Your task to perform on an android device: toggle translation in the chrome app Image 0: 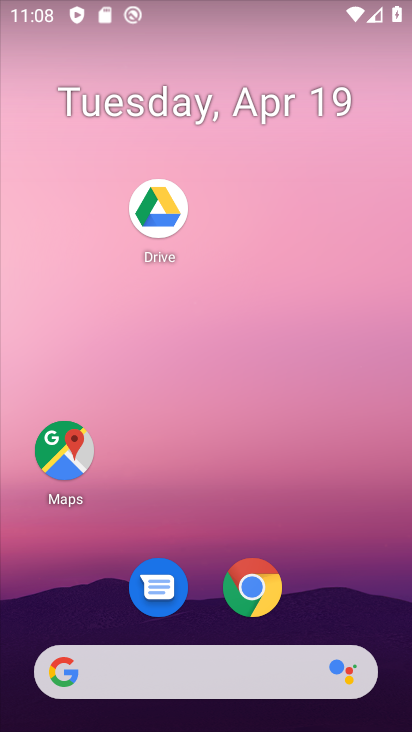
Step 0: click (254, 587)
Your task to perform on an android device: toggle translation in the chrome app Image 1: 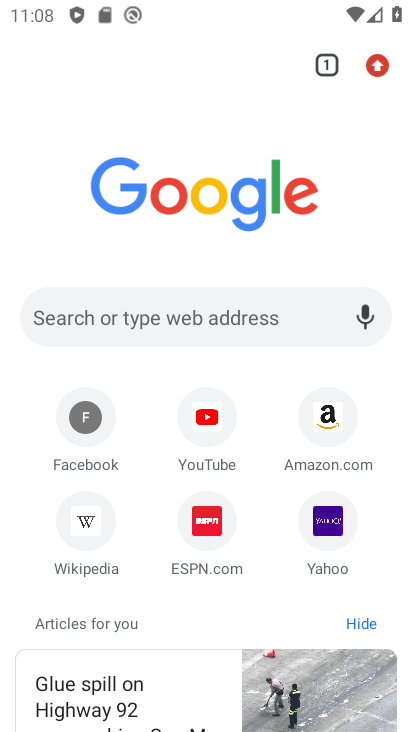
Step 1: click (374, 61)
Your task to perform on an android device: toggle translation in the chrome app Image 2: 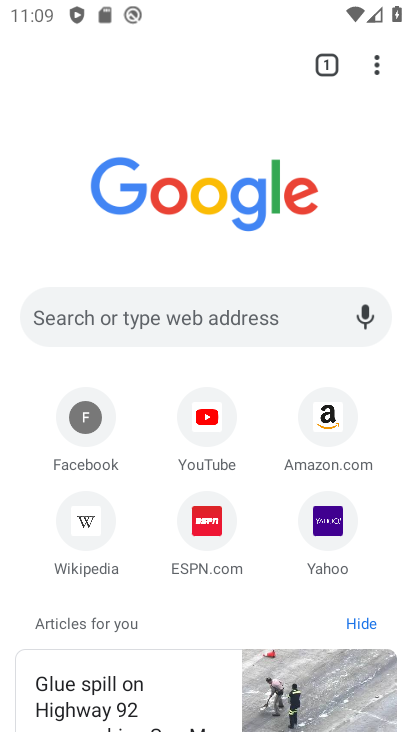
Step 2: click (376, 65)
Your task to perform on an android device: toggle translation in the chrome app Image 3: 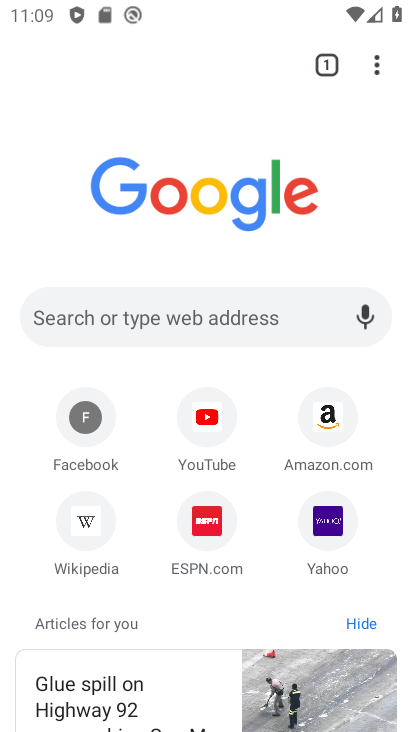
Step 3: drag from (377, 66) to (209, 618)
Your task to perform on an android device: toggle translation in the chrome app Image 4: 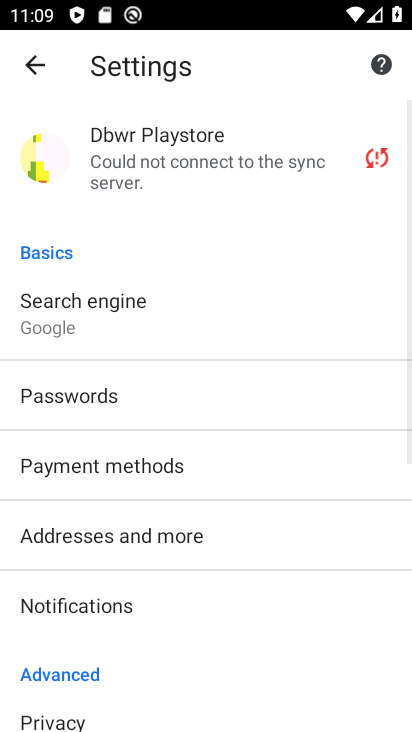
Step 4: drag from (119, 694) to (138, 293)
Your task to perform on an android device: toggle translation in the chrome app Image 5: 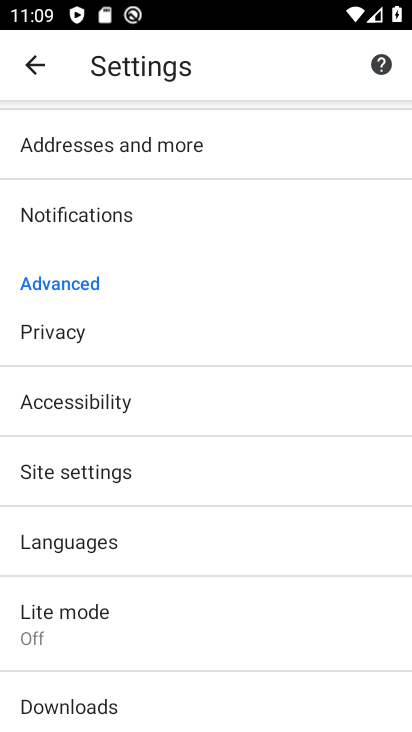
Step 5: click (117, 528)
Your task to perform on an android device: toggle translation in the chrome app Image 6: 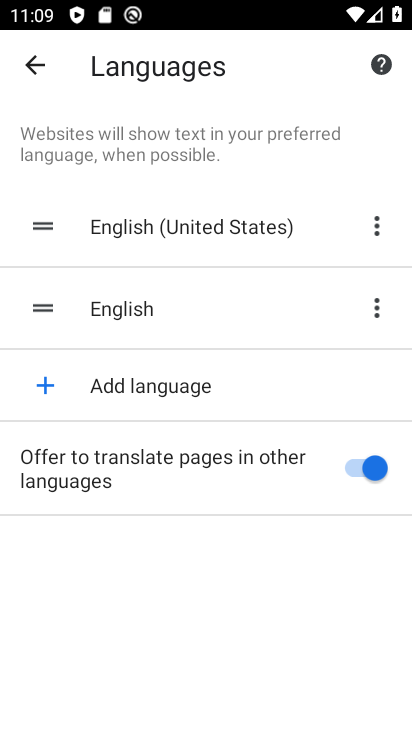
Step 6: click (360, 471)
Your task to perform on an android device: toggle translation in the chrome app Image 7: 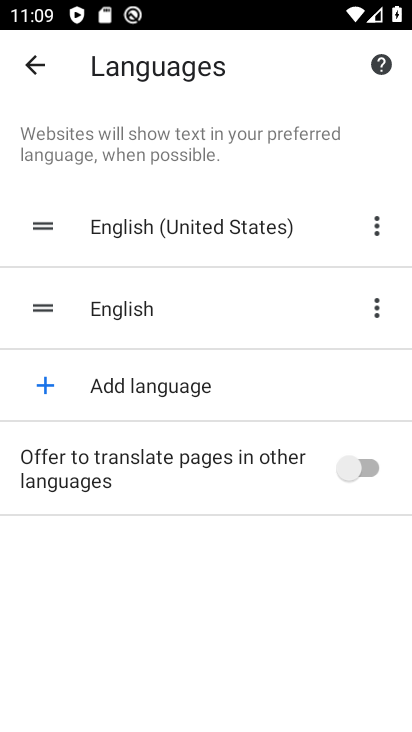
Step 7: task complete